Your task to perform on an android device: Open the calendar app, open the side menu, and click the "Day" option Image 0: 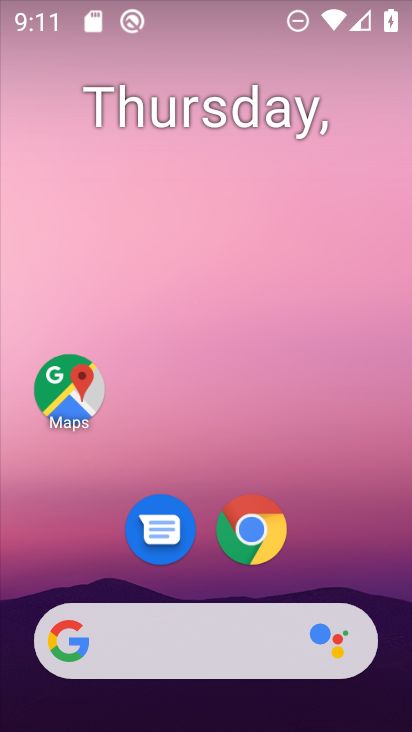
Step 0: drag from (246, 714) to (241, 145)
Your task to perform on an android device: Open the calendar app, open the side menu, and click the "Day" option Image 1: 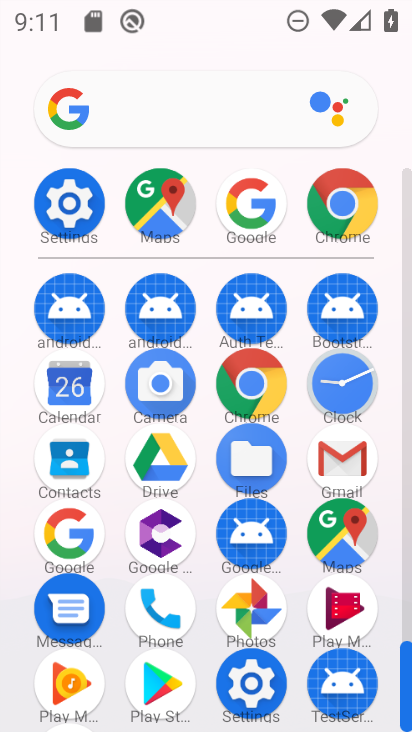
Step 1: click (62, 380)
Your task to perform on an android device: Open the calendar app, open the side menu, and click the "Day" option Image 2: 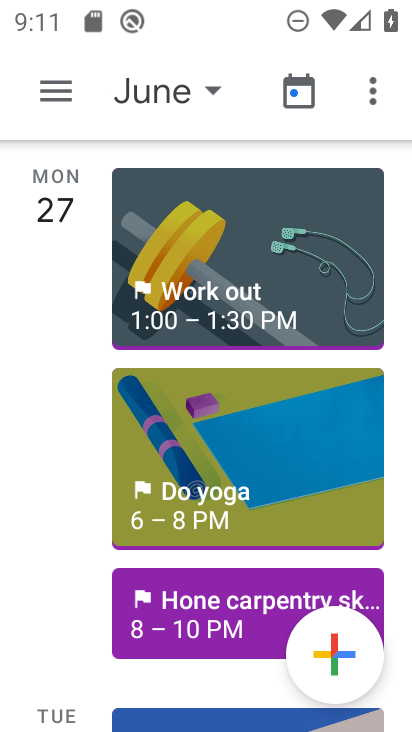
Step 2: click (49, 90)
Your task to perform on an android device: Open the calendar app, open the side menu, and click the "Day" option Image 3: 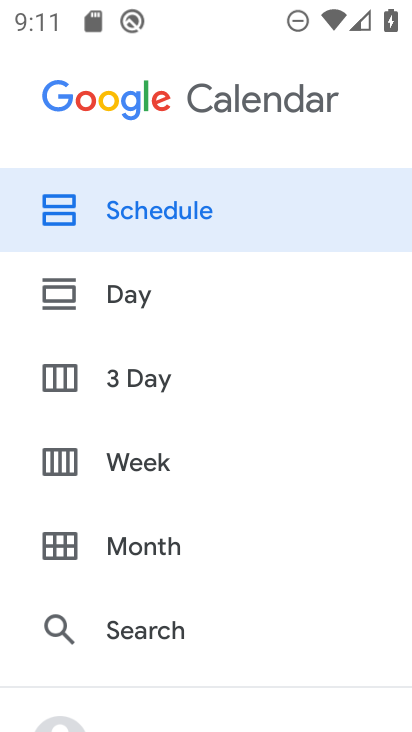
Step 3: click (125, 293)
Your task to perform on an android device: Open the calendar app, open the side menu, and click the "Day" option Image 4: 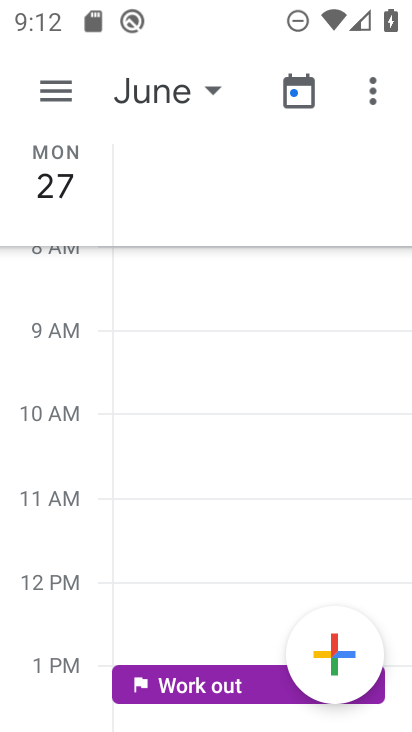
Step 4: task complete